Your task to perform on an android device: Open battery settings Image 0: 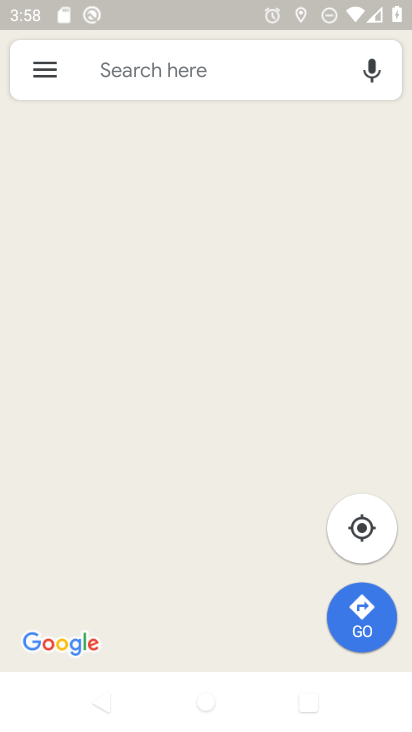
Step 0: press home button
Your task to perform on an android device: Open battery settings Image 1: 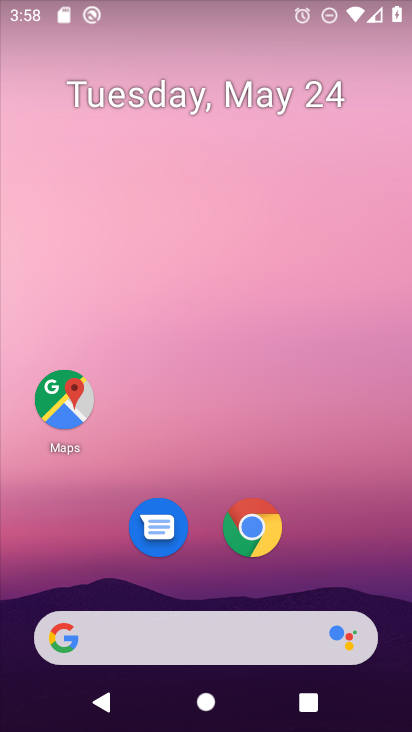
Step 1: click (183, 43)
Your task to perform on an android device: Open battery settings Image 2: 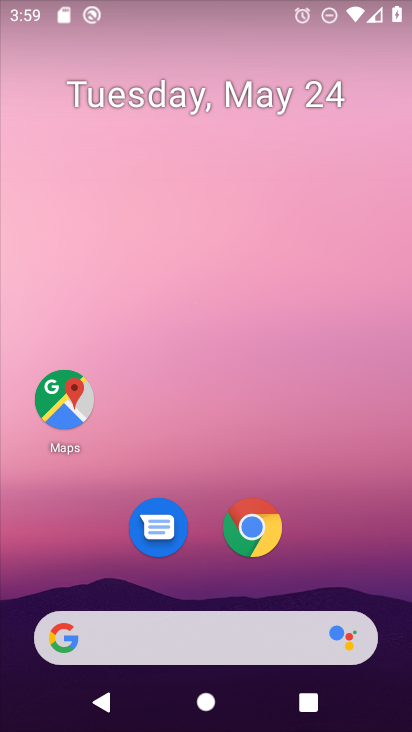
Step 2: drag from (195, 572) to (361, 317)
Your task to perform on an android device: Open battery settings Image 3: 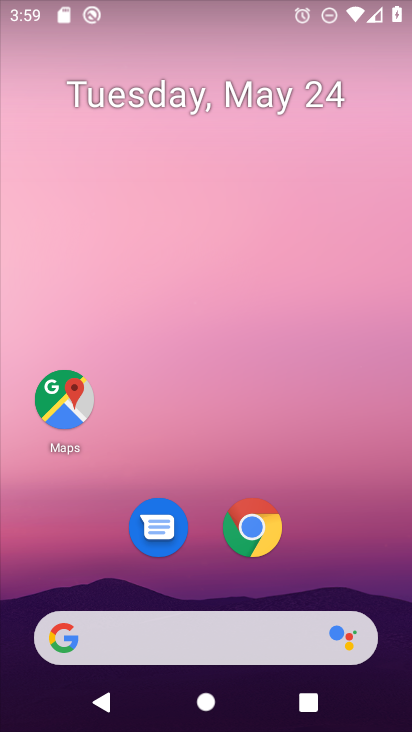
Step 3: drag from (198, 607) to (348, 2)
Your task to perform on an android device: Open battery settings Image 4: 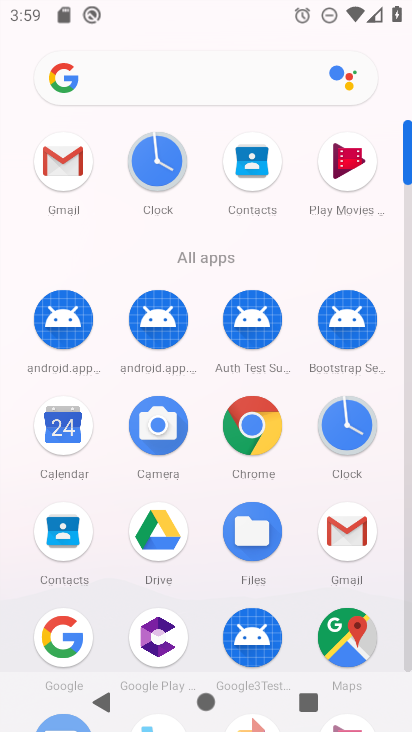
Step 4: drag from (203, 609) to (234, 162)
Your task to perform on an android device: Open battery settings Image 5: 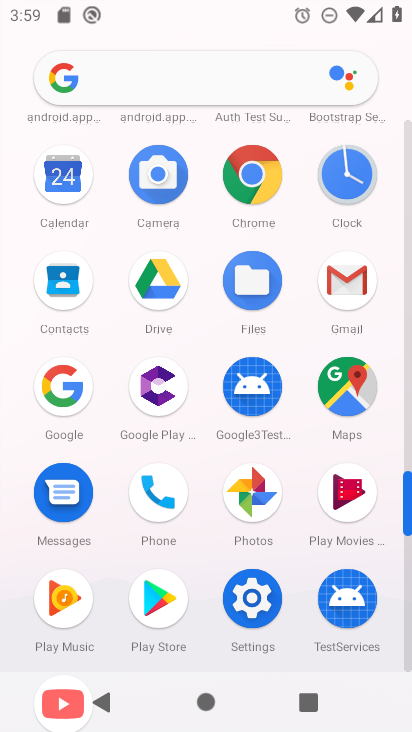
Step 5: click (262, 617)
Your task to perform on an android device: Open battery settings Image 6: 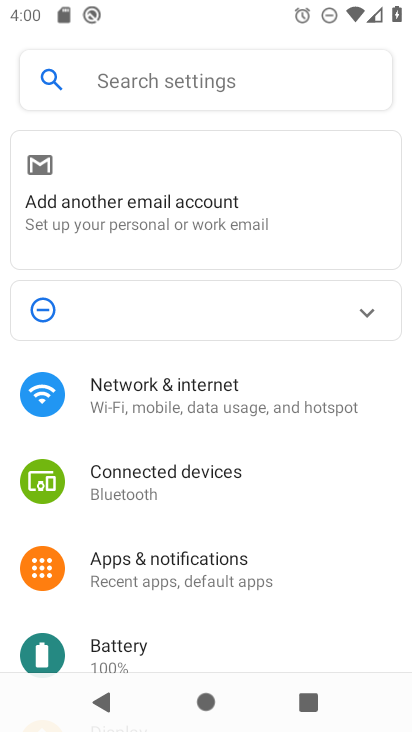
Step 6: click (101, 646)
Your task to perform on an android device: Open battery settings Image 7: 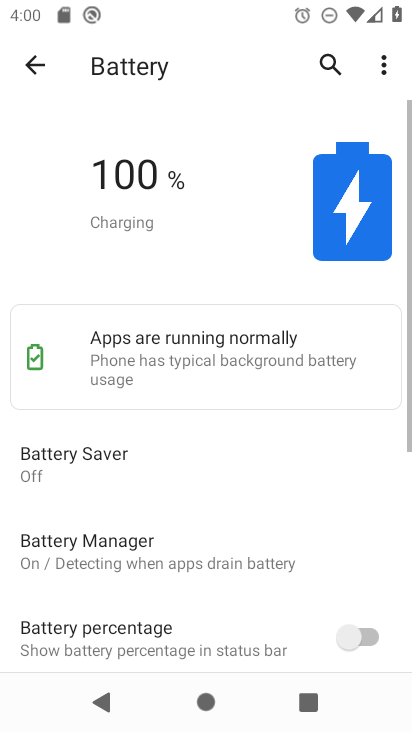
Step 7: task complete